Your task to perform on an android device: Open Youtube and go to the subscriptions tab Image 0: 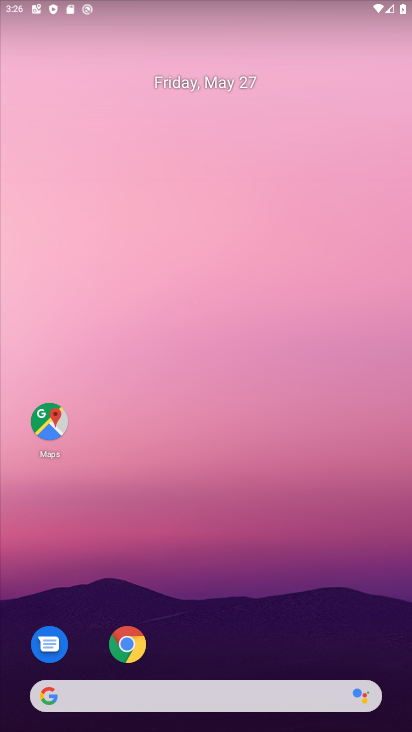
Step 0: drag from (248, 593) to (96, 29)
Your task to perform on an android device: Open Youtube and go to the subscriptions tab Image 1: 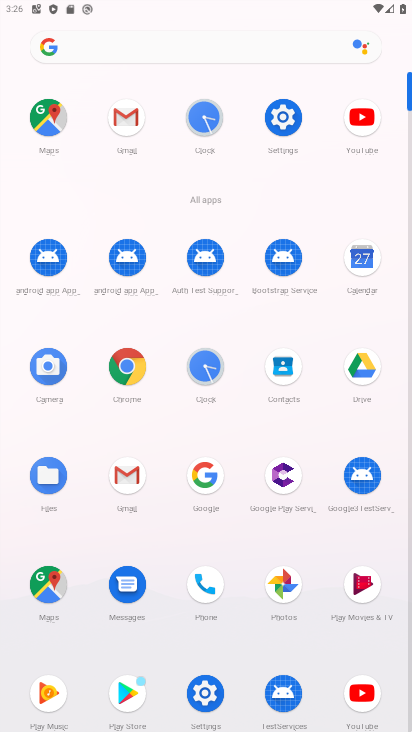
Step 1: click (372, 683)
Your task to perform on an android device: Open Youtube and go to the subscriptions tab Image 2: 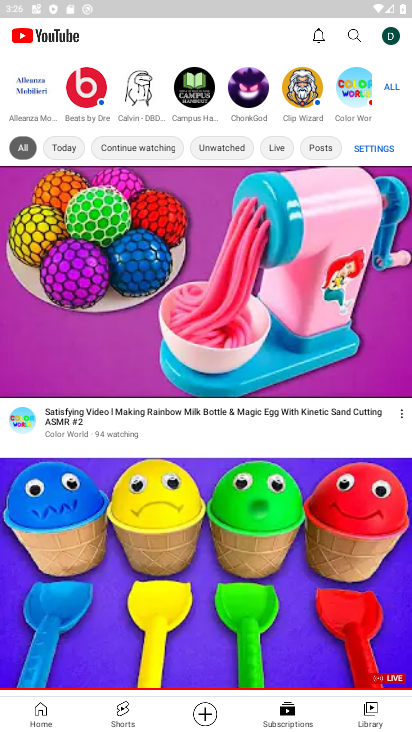
Step 2: click (306, 719)
Your task to perform on an android device: Open Youtube and go to the subscriptions tab Image 3: 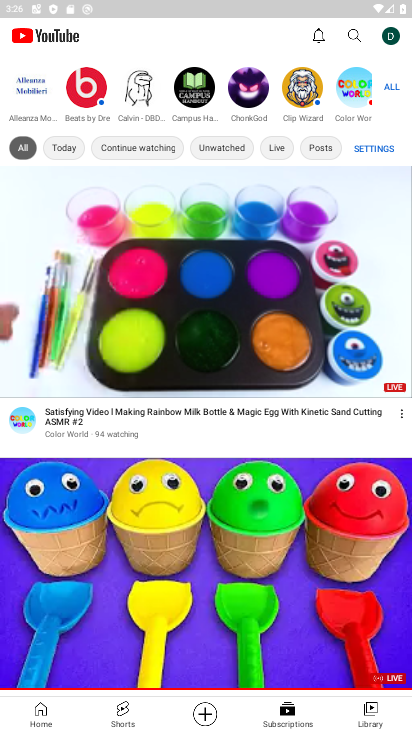
Step 3: task complete